Your task to perform on an android device: Open wifi settings Image 0: 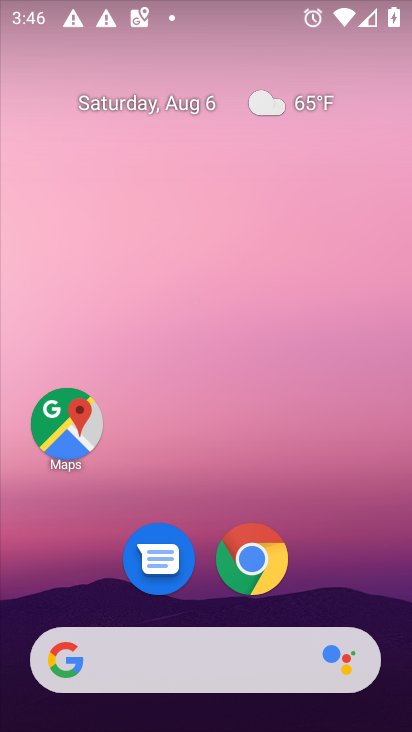
Step 0: drag from (326, 568) to (343, 64)
Your task to perform on an android device: Open wifi settings Image 1: 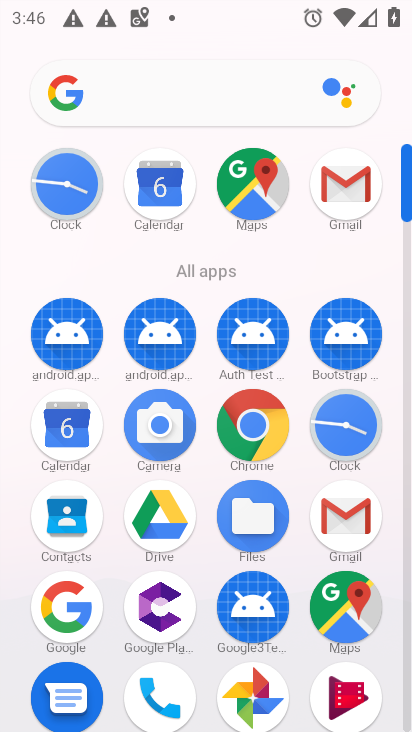
Step 1: drag from (214, 521) to (218, 252)
Your task to perform on an android device: Open wifi settings Image 2: 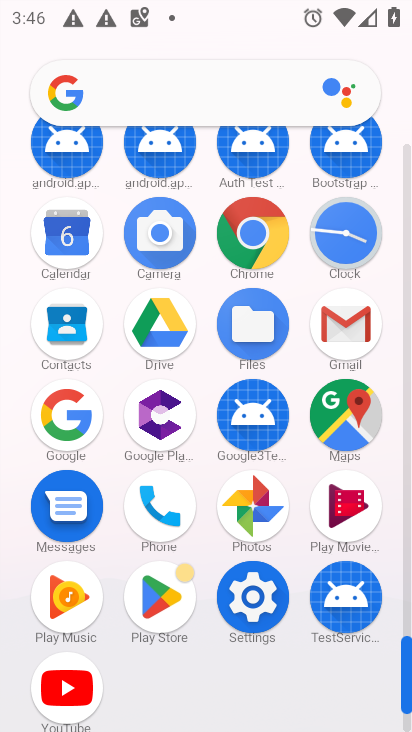
Step 2: click (243, 611)
Your task to perform on an android device: Open wifi settings Image 3: 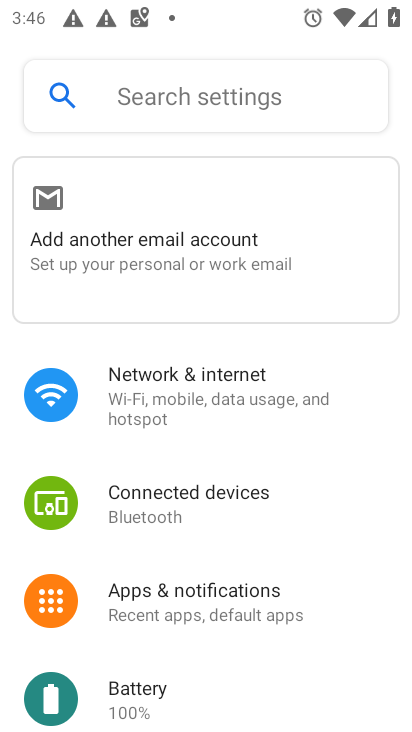
Step 3: click (254, 390)
Your task to perform on an android device: Open wifi settings Image 4: 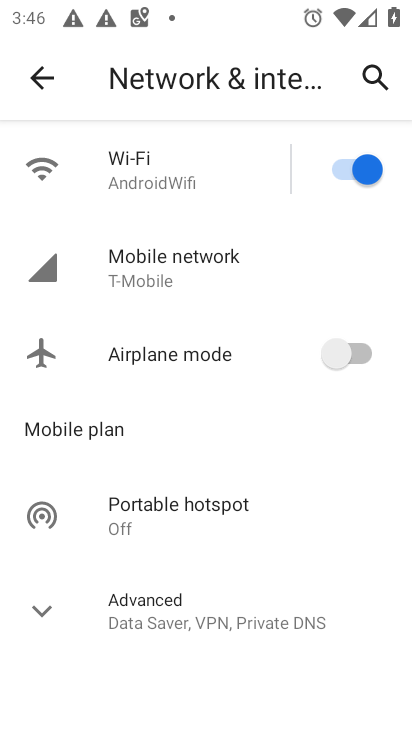
Step 4: click (182, 175)
Your task to perform on an android device: Open wifi settings Image 5: 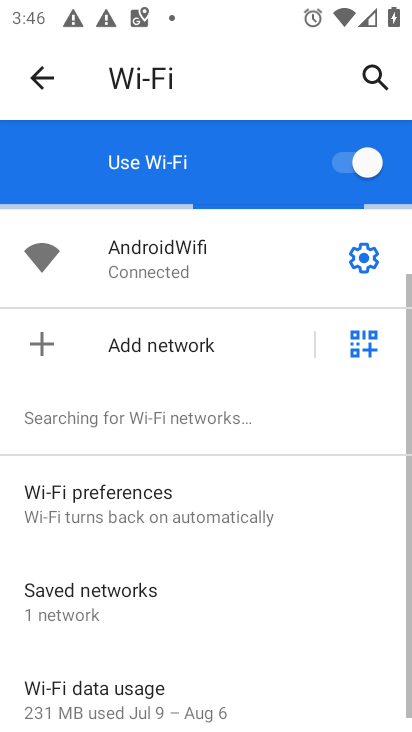
Step 5: task complete